Your task to perform on an android device: Clear the cart on target.com. Add usb-a to usb-b to the cart on target.com Image 0: 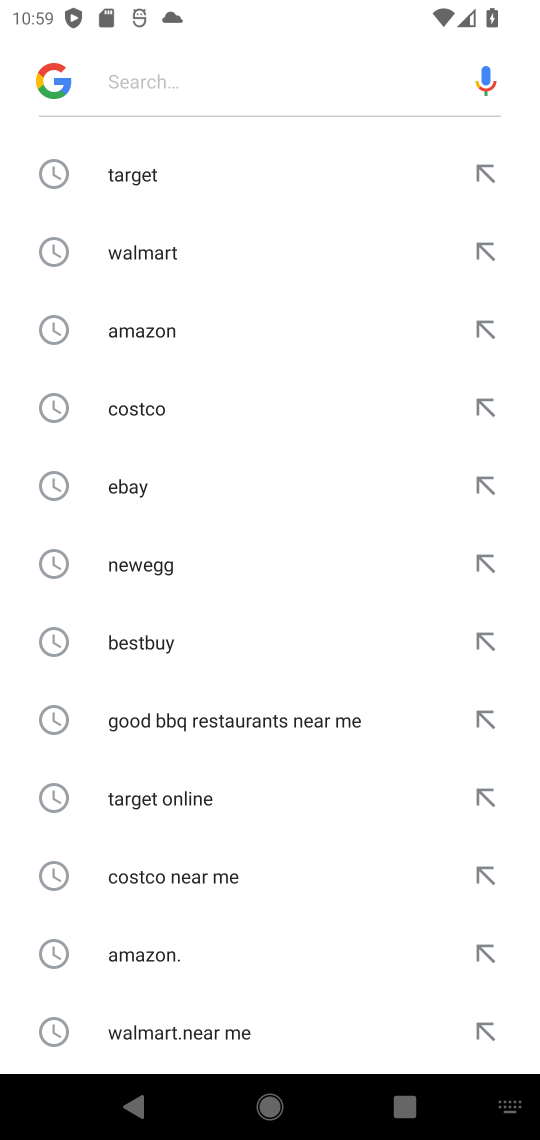
Step 0: click (139, 81)
Your task to perform on an android device: Clear the cart on target.com. Add usb-a to usb-b to the cart on target.com Image 1: 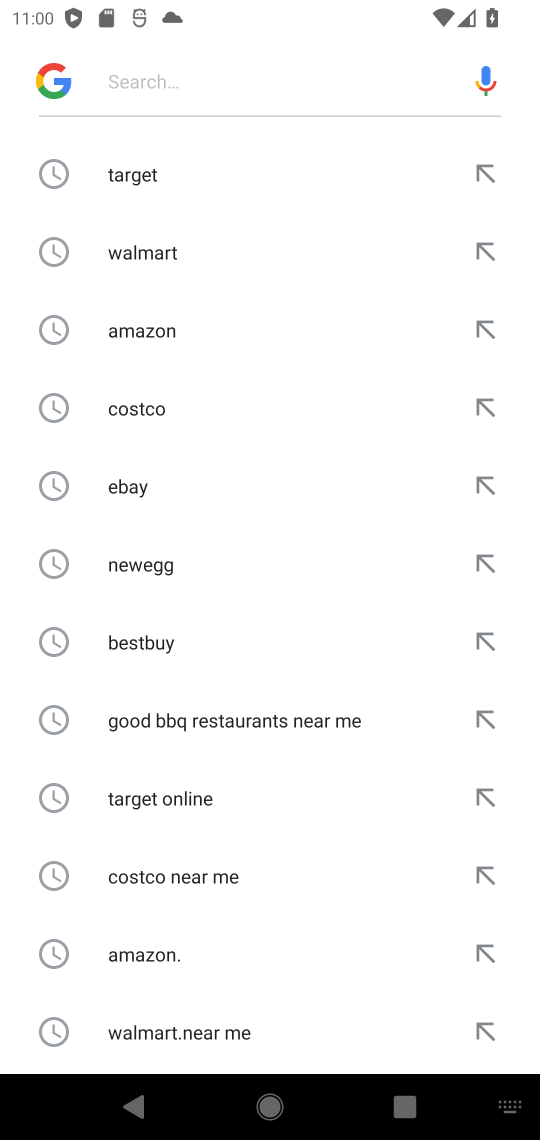
Step 1: click (126, 178)
Your task to perform on an android device: Clear the cart on target.com. Add usb-a to usb-b to the cart on target.com Image 2: 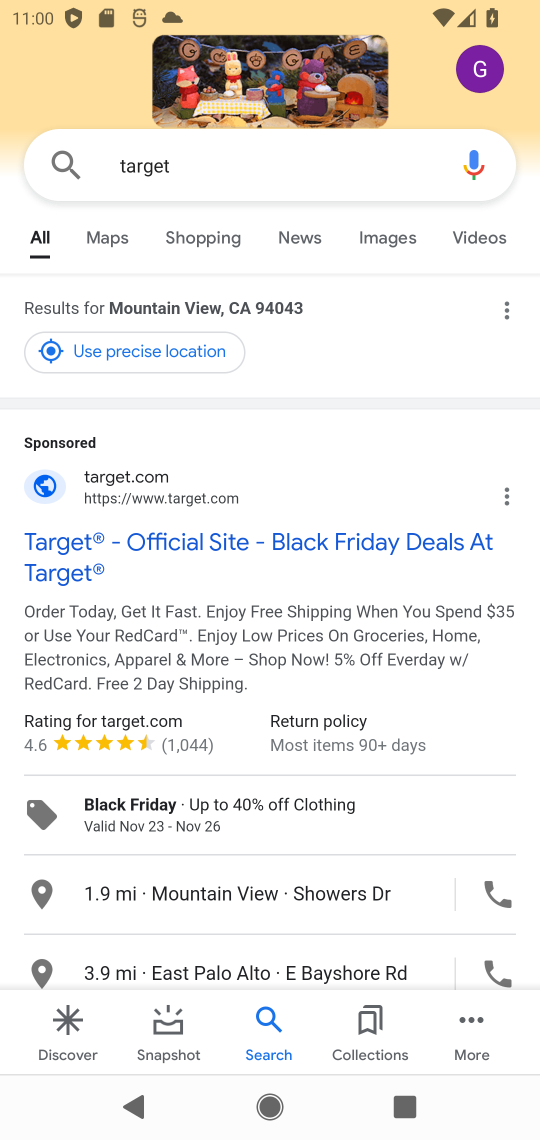
Step 2: drag from (145, 657) to (132, 403)
Your task to perform on an android device: Clear the cart on target.com. Add usb-a to usb-b to the cart on target.com Image 3: 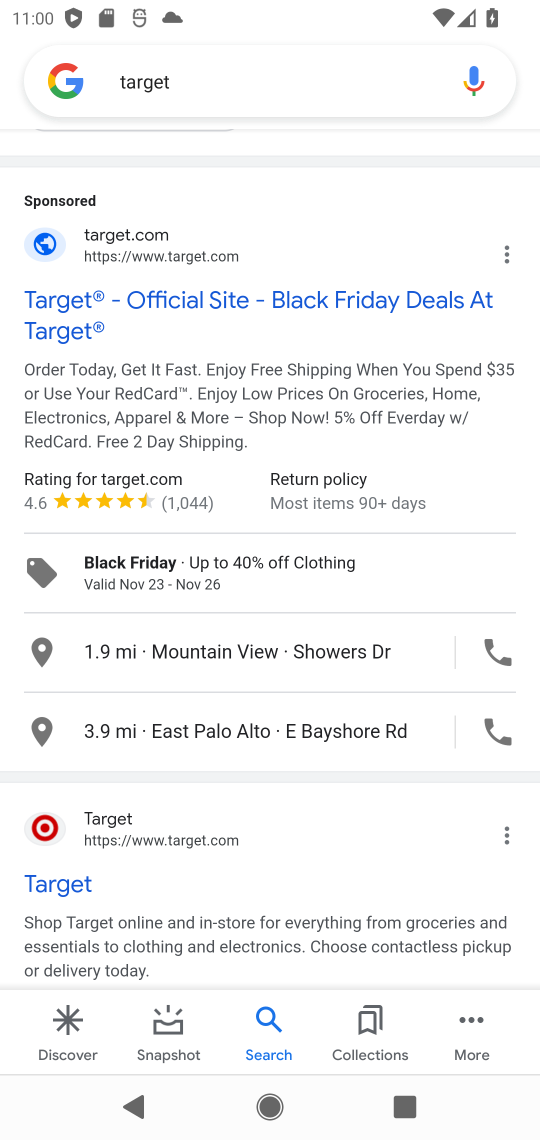
Step 3: click (61, 878)
Your task to perform on an android device: Clear the cart on target.com. Add usb-a to usb-b to the cart on target.com Image 4: 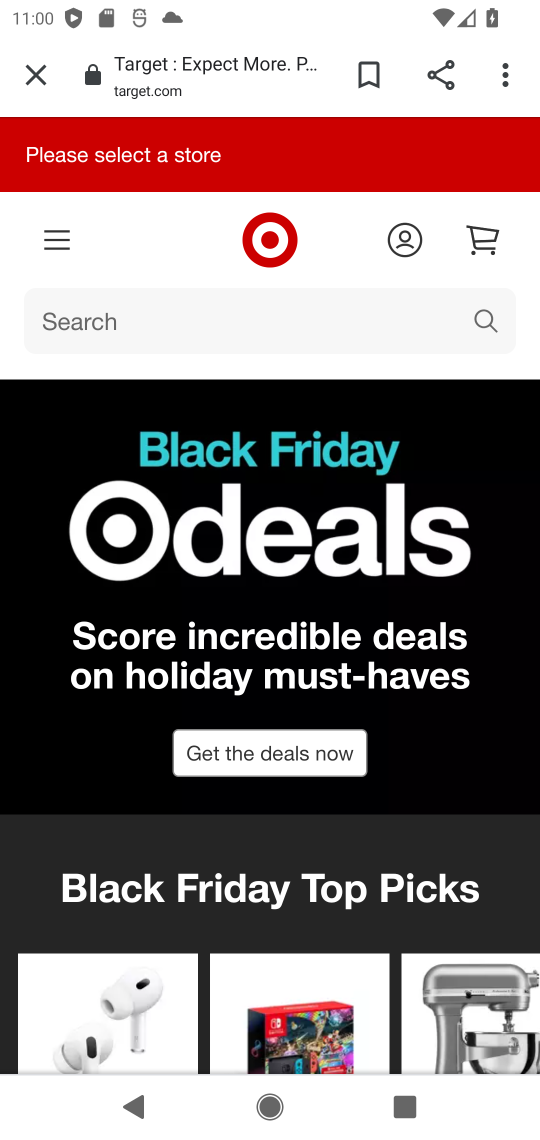
Step 4: click (482, 235)
Your task to perform on an android device: Clear the cart on target.com. Add usb-a to usb-b to the cart on target.com Image 5: 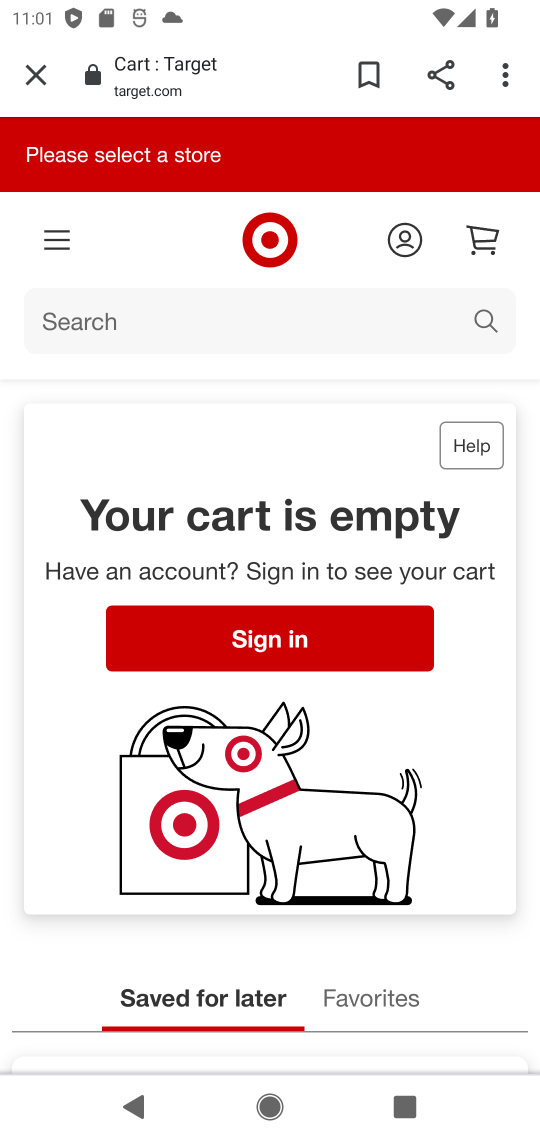
Step 5: click (473, 324)
Your task to perform on an android device: Clear the cart on target.com. Add usb-a to usb-b to the cart on target.com Image 6: 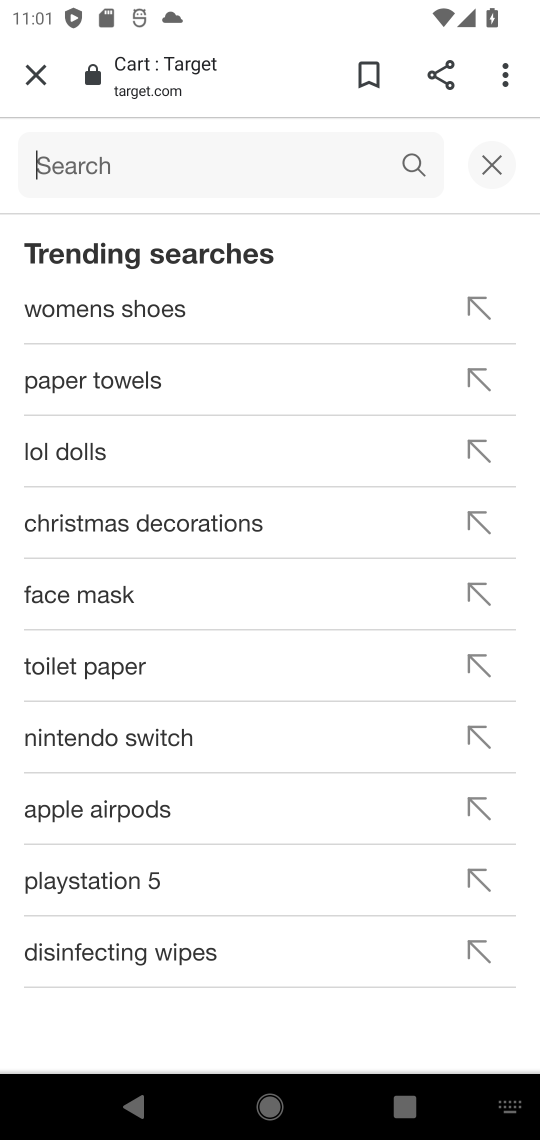
Step 6: type "usb-a to usb-b "
Your task to perform on an android device: Clear the cart on target.com. Add usb-a to usb-b to the cart on target.com Image 7: 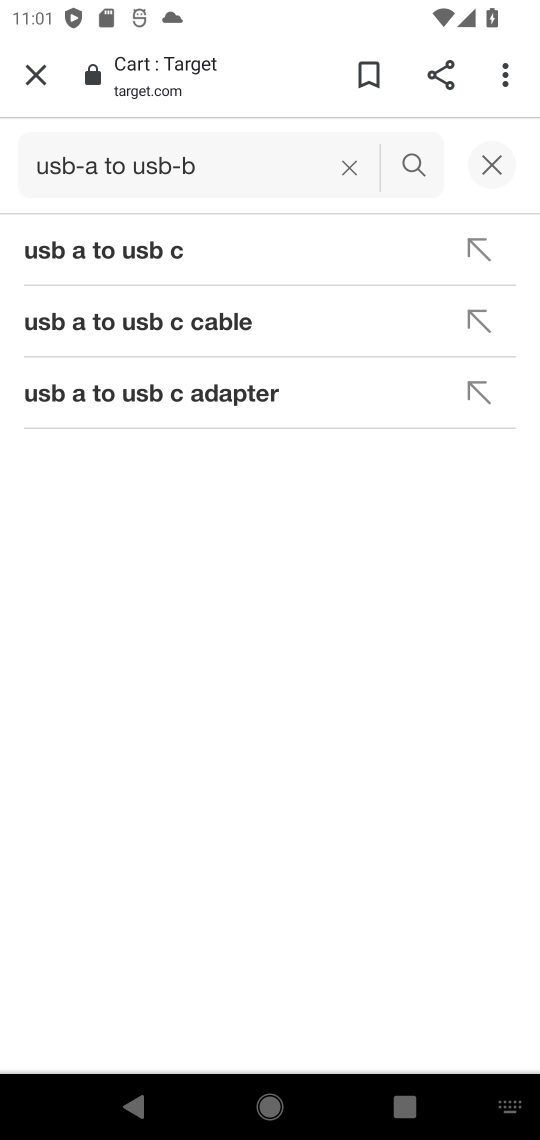
Step 7: click (399, 163)
Your task to perform on an android device: Clear the cart on target.com. Add usb-a to usb-b to the cart on target.com Image 8: 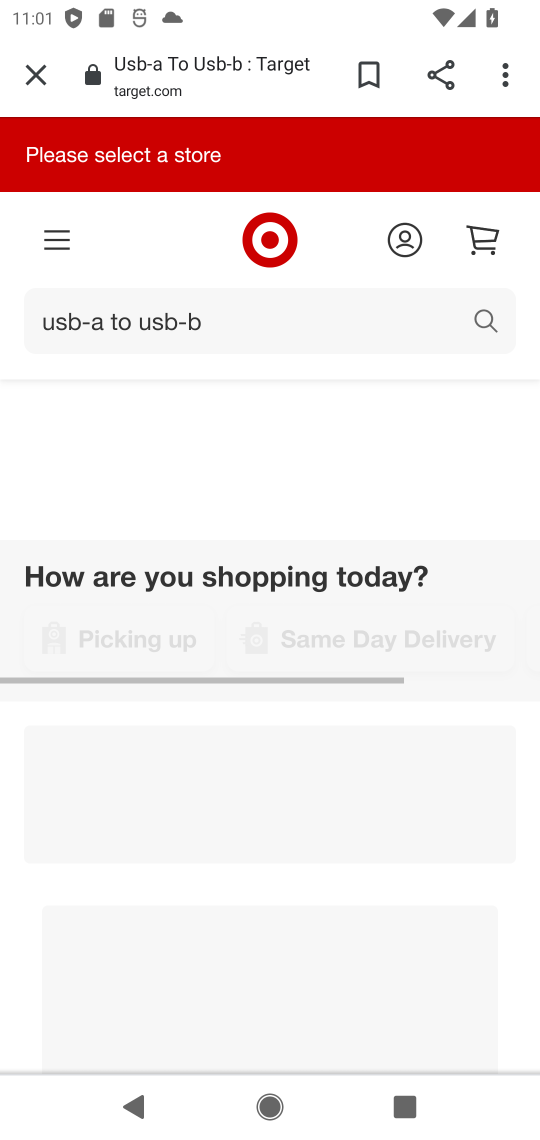
Step 8: drag from (185, 757) to (208, 375)
Your task to perform on an android device: Clear the cart on target.com. Add usb-a to usb-b to the cart on target.com Image 9: 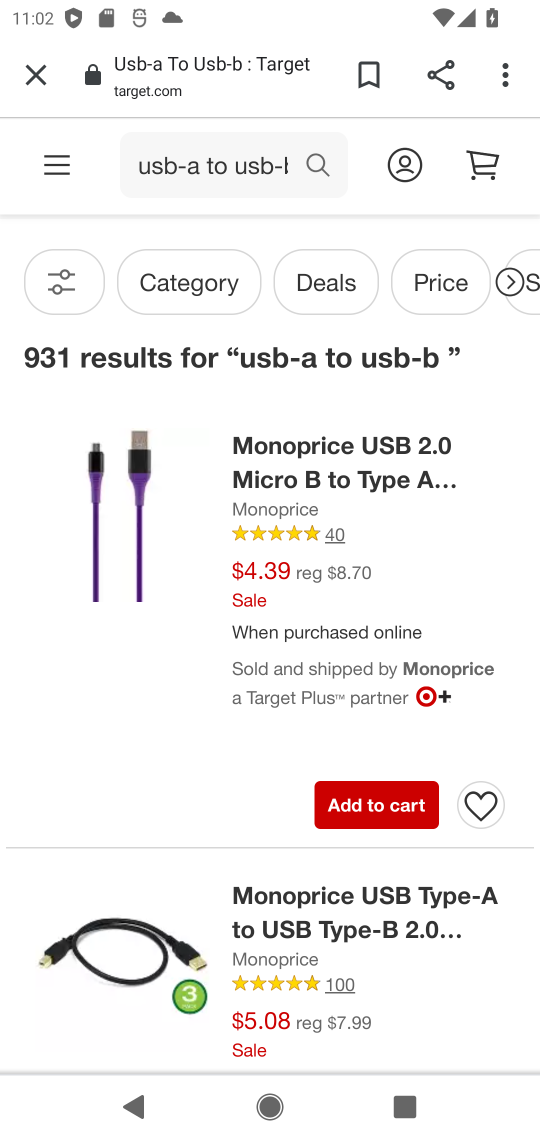
Step 9: drag from (133, 683) to (173, 441)
Your task to perform on an android device: Clear the cart on target.com. Add usb-a to usb-b to the cart on target.com Image 10: 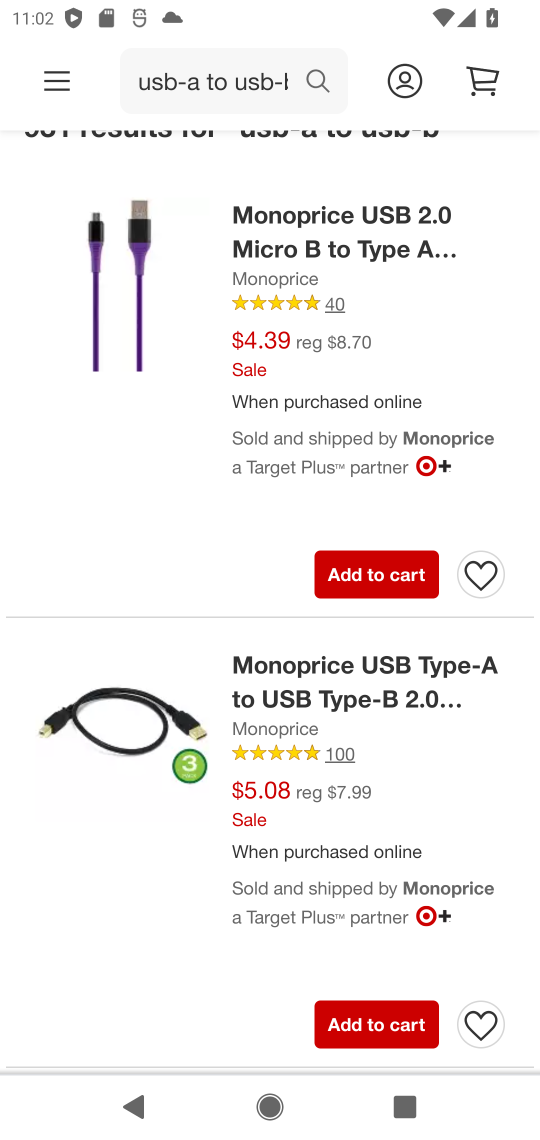
Step 10: click (339, 1011)
Your task to perform on an android device: Clear the cart on target.com. Add usb-a to usb-b to the cart on target.com Image 11: 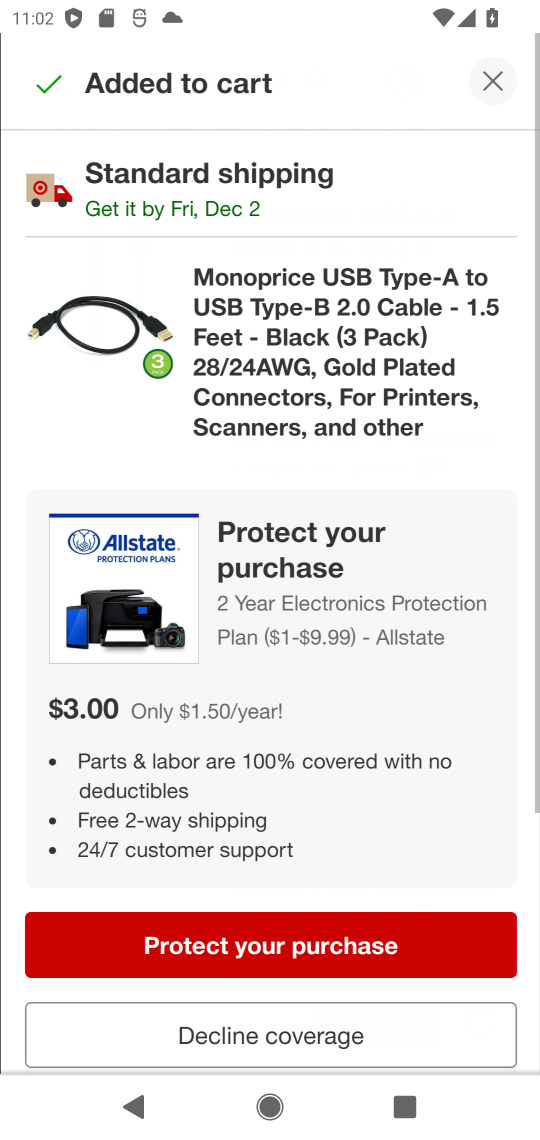
Step 11: click (483, 86)
Your task to perform on an android device: Clear the cart on target.com. Add usb-a to usb-b to the cart on target.com Image 12: 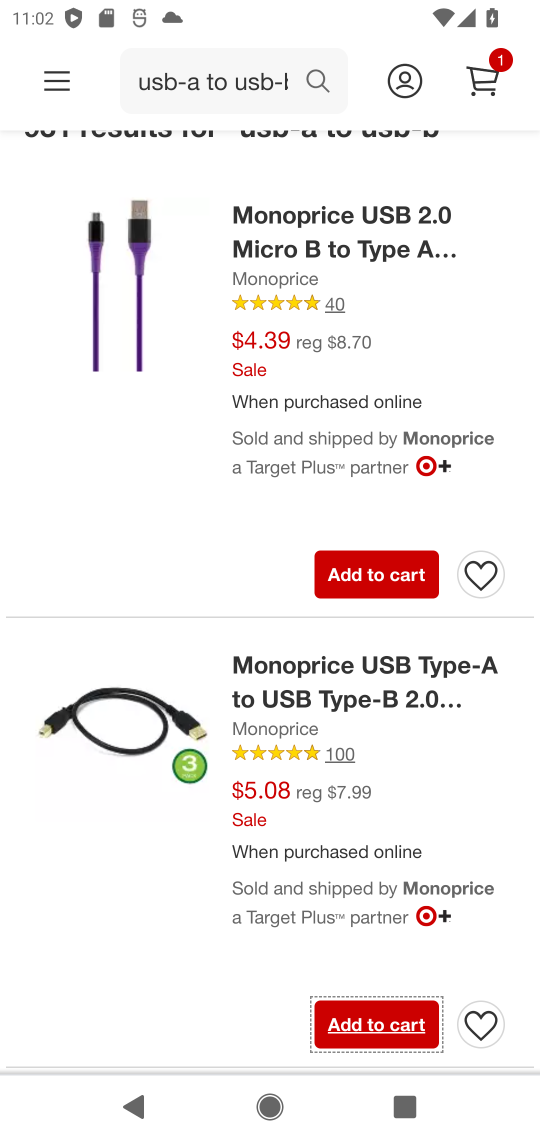
Step 12: task complete